Your task to perform on an android device: check battery use Image 0: 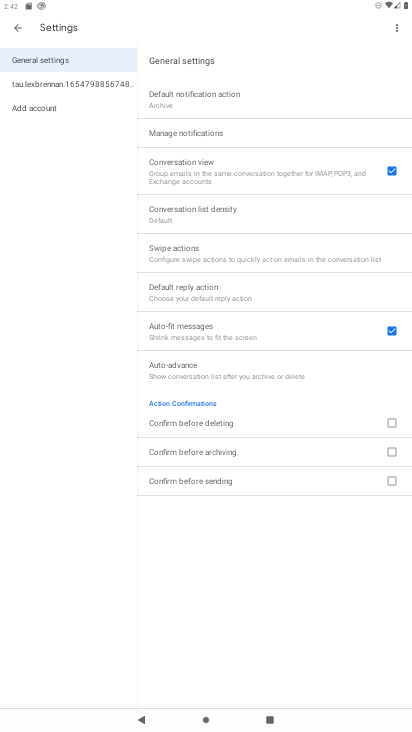
Step 0: press home button
Your task to perform on an android device: check battery use Image 1: 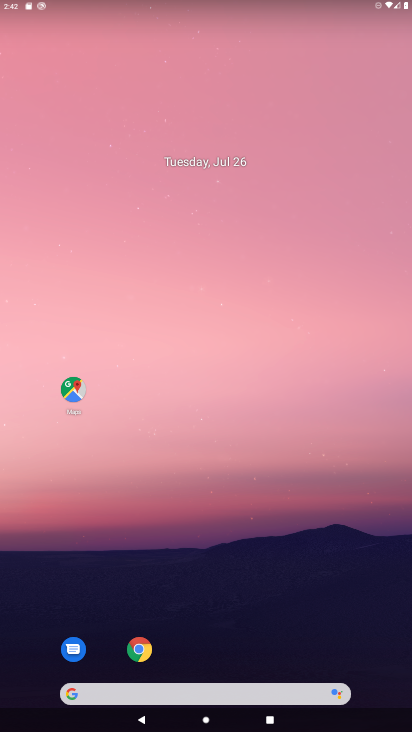
Step 1: drag from (213, 691) to (156, 326)
Your task to perform on an android device: check battery use Image 2: 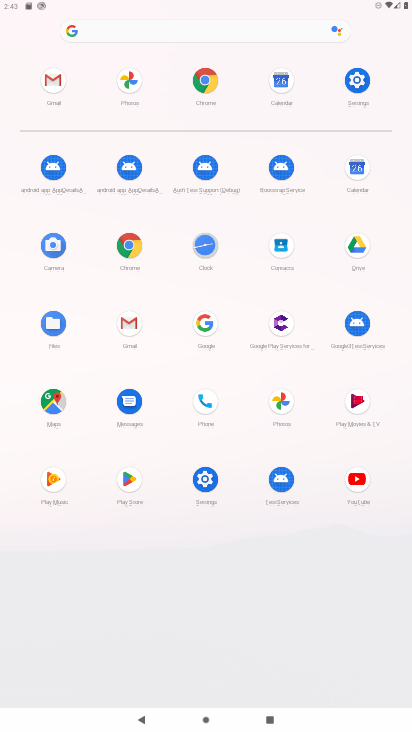
Step 2: click (339, 87)
Your task to perform on an android device: check battery use Image 3: 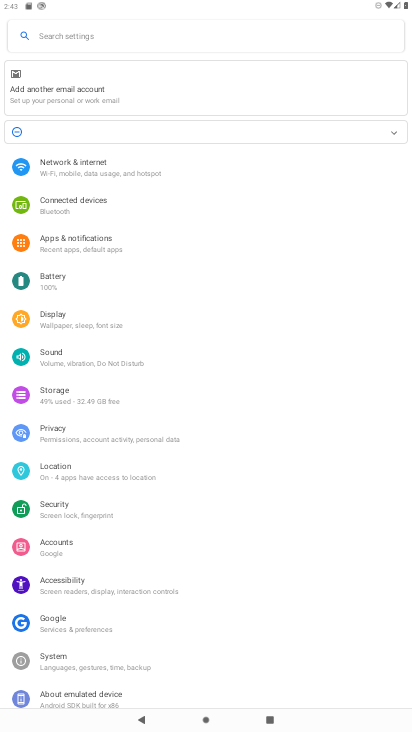
Step 3: click (65, 280)
Your task to perform on an android device: check battery use Image 4: 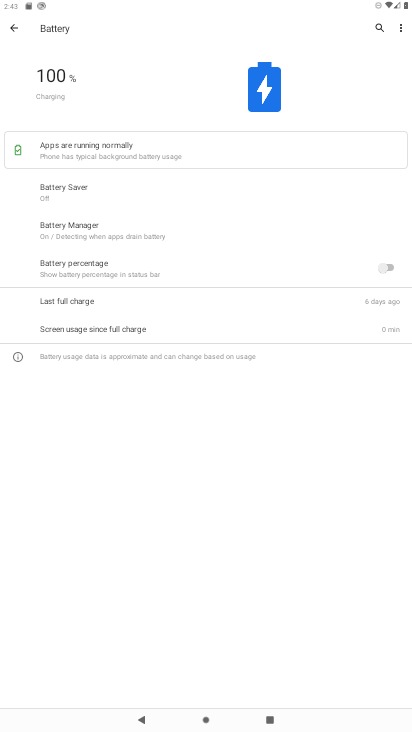
Step 4: click (398, 22)
Your task to perform on an android device: check battery use Image 5: 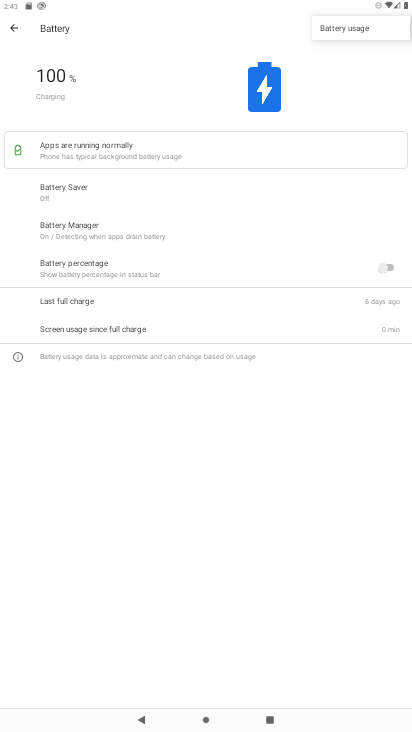
Step 5: click (349, 27)
Your task to perform on an android device: check battery use Image 6: 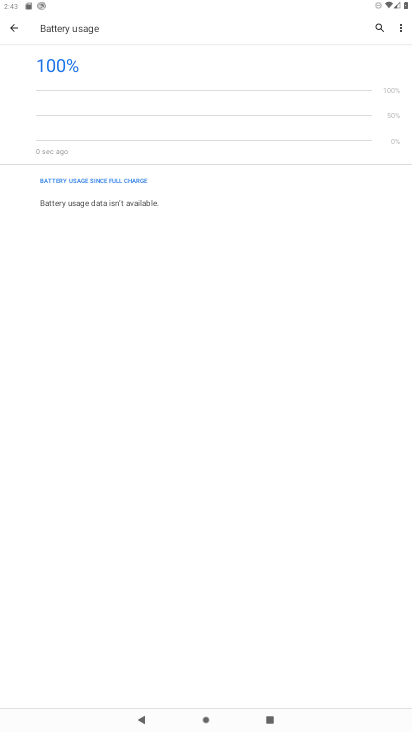
Step 6: task complete